Your task to perform on an android device: toggle data saver in the chrome app Image 0: 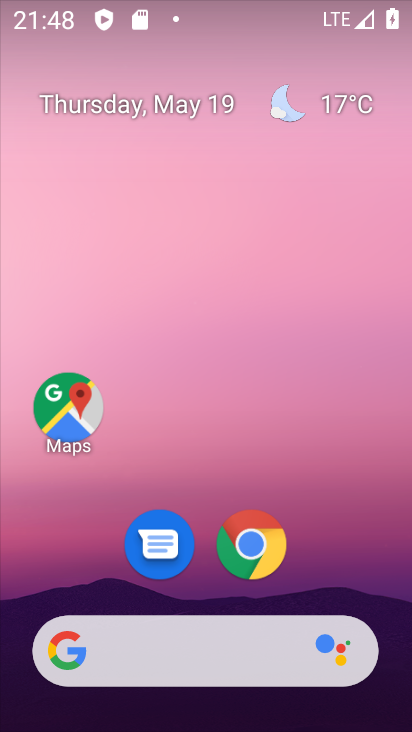
Step 0: click (260, 526)
Your task to perform on an android device: toggle data saver in the chrome app Image 1: 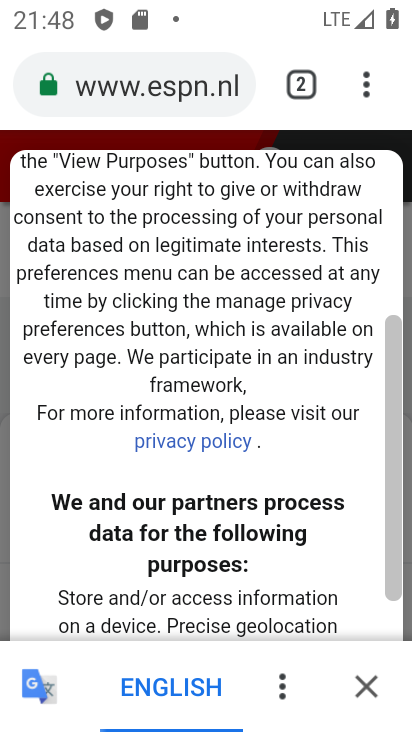
Step 1: click (365, 81)
Your task to perform on an android device: toggle data saver in the chrome app Image 2: 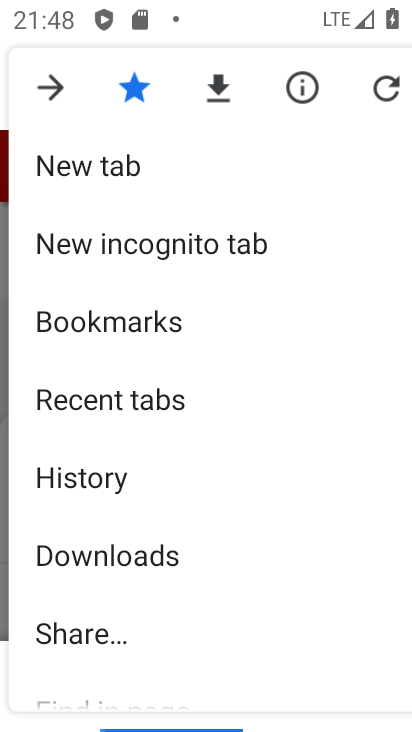
Step 2: drag from (209, 666) to (219, 310)
Your task to perform on an android device: toggle data saver in the chrome app Image 3: 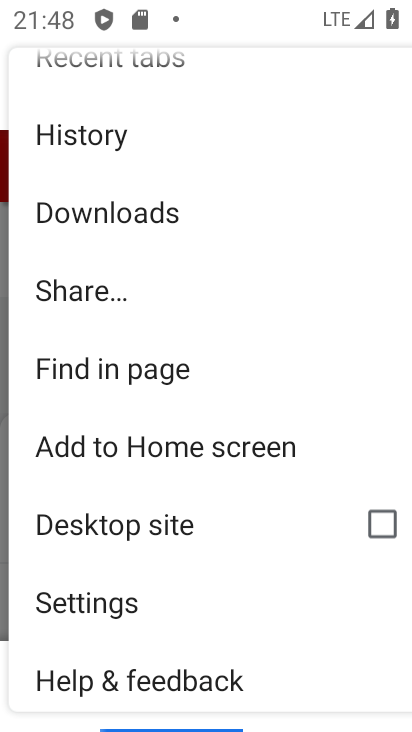
Step 3: click (121, 615)
Your task to perform on an android device: toggle data saver in the chrome app Image 4: 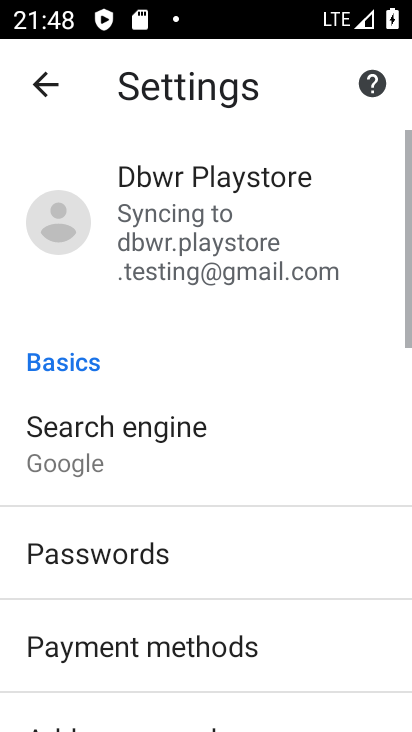
Step 4: drag from (245, 658) to (238, 133)
Your task to perform on an android device: toggle data saver in the chrome app Image 5: 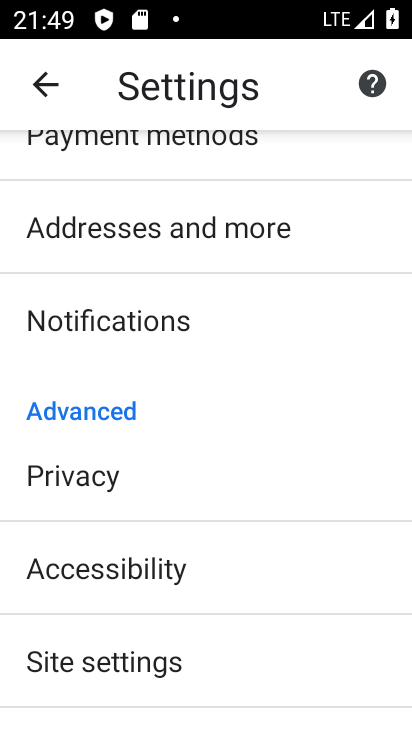
Step 5: drag from (270, 576) to (284, 40)
Your task to perform on an android device: toggle data saver in the chrome app Image 6: 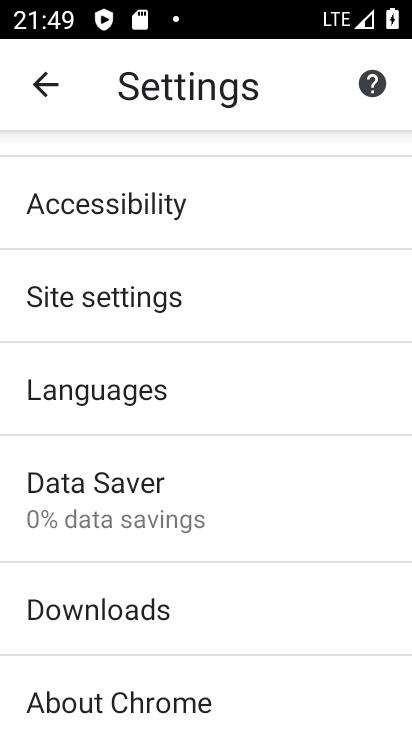
Step 6: click (202, 482)
Your task to perform on an android device: toggle data saver in the chrome app Image 7: 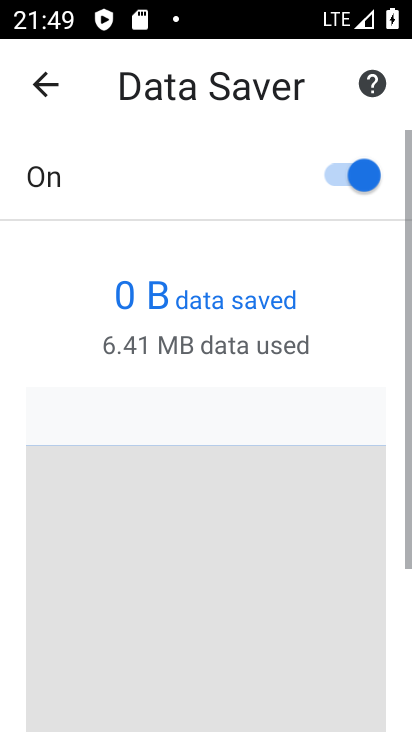
Step 7: click (356, 162)
Your task to perform on an android device: toggle data saver in the chrome app Image 8: 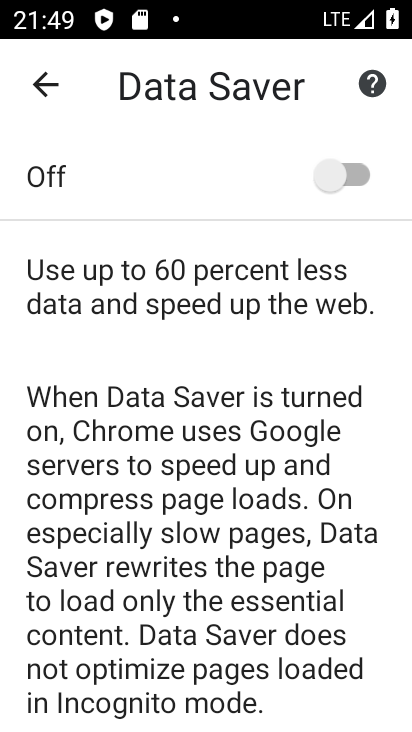
Step 8: task complete